Your task to perform on an android device: Search for Mexican restaurants on Maps Image 0: 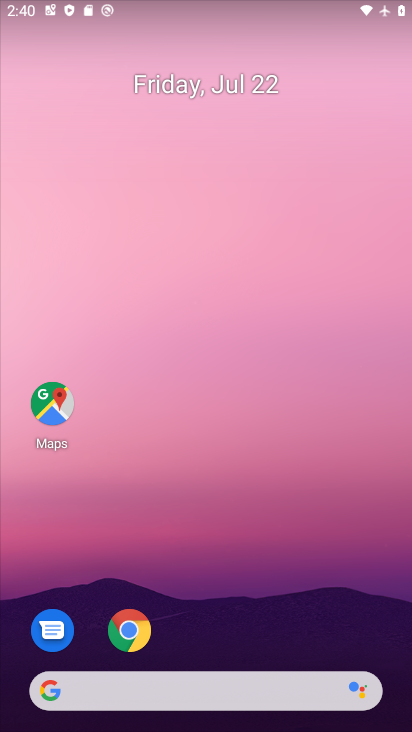
Step 0: drag from (228, 661) to (224, 34)
Your task to perform on an android device: Search for Mexican restaurants on Maps Image 1: 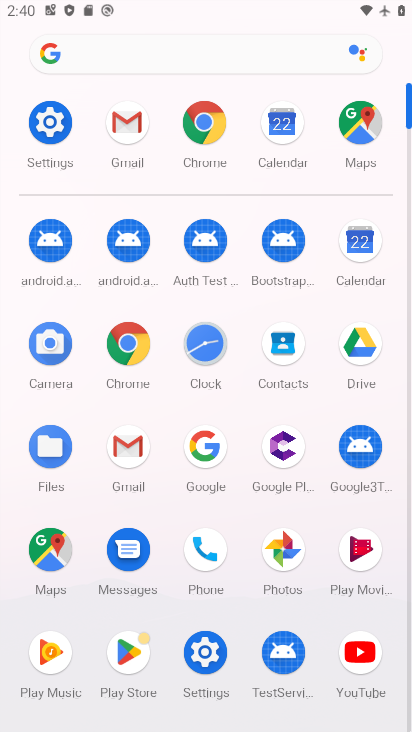
Step 1: click (47, 552)
Your task to perform on an android device: Search for Mexican restaurants on Maps Image 2: 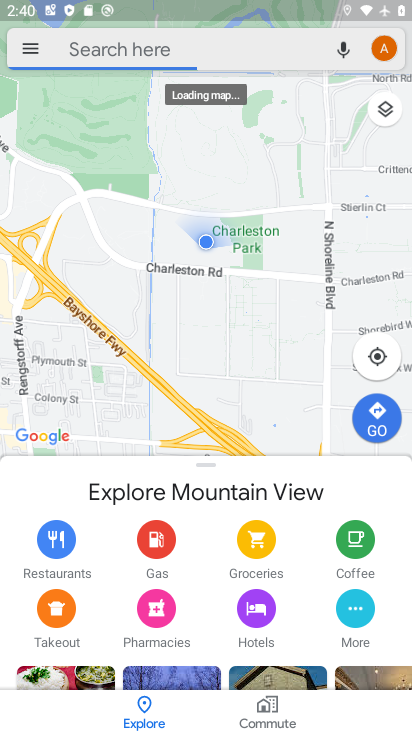
Step 2: click (200, 61)
Your task to perform on an android device: Search for Mexican restaurants on Maps Image 3: 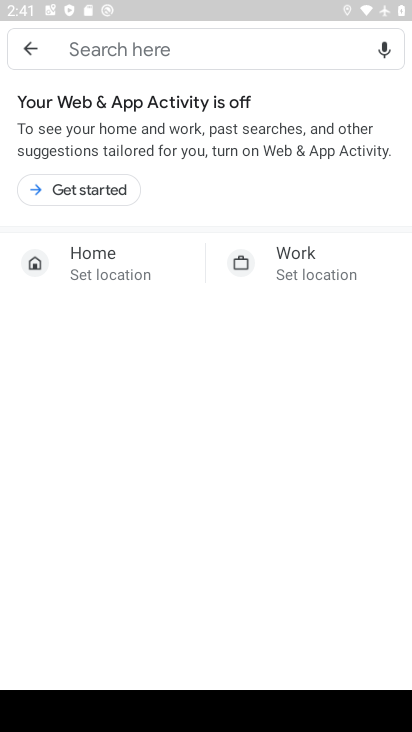
Step 3: click (106, 197)
Your task to perform on an android device: Search for Mexican restaurants on Maps Image 4: 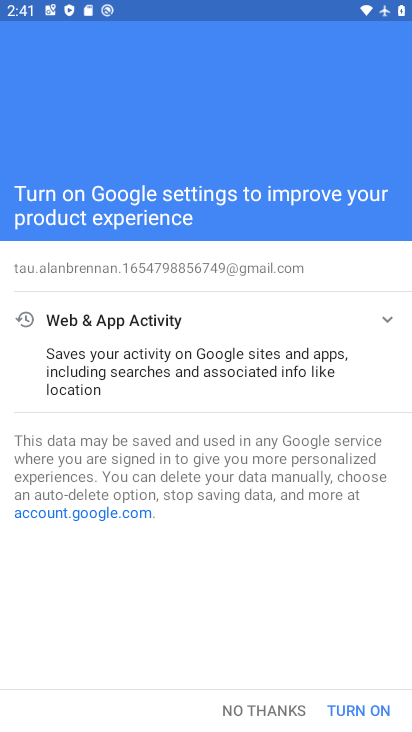
Step 4: click (360, 710)
Your task to perform on an android device: Search for Mexican restaurants on Maps Image 5: 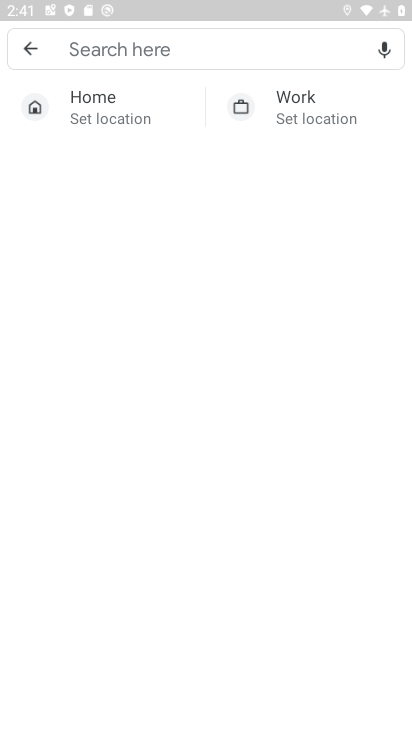
Step 5: click (111, 62)
Your task to perform on an android device: Search for Mexican restaurants on Maps Image 6: 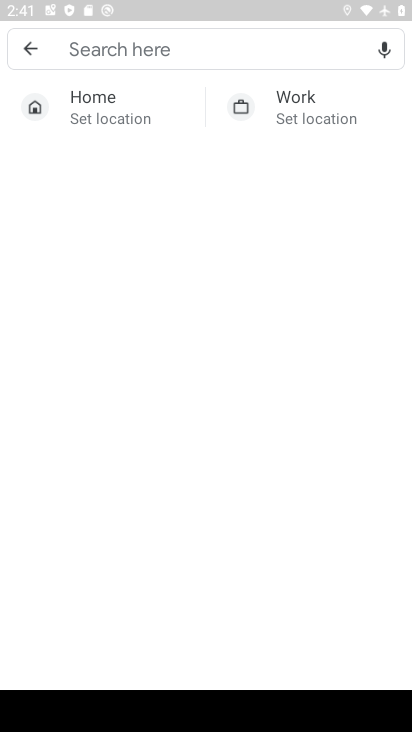
Step 6: type " Mexican restaurants"
Your task to perform on an android device: Search for Mexican restaurants on Maps Image 7: 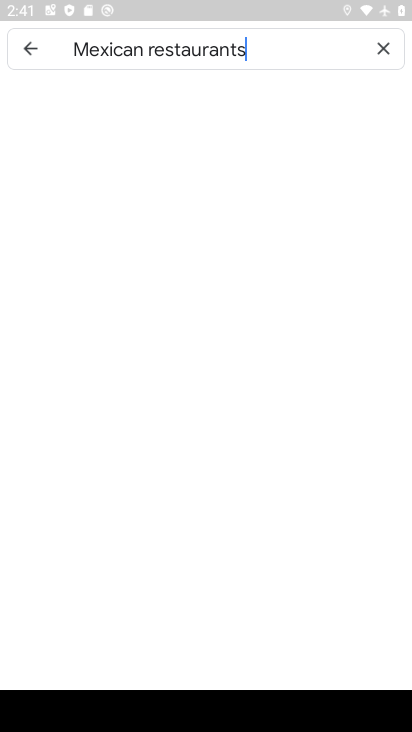
Step 7: type ""
Your task to perform on an android device: Search for Mexican restaurants on Maps Image 8: 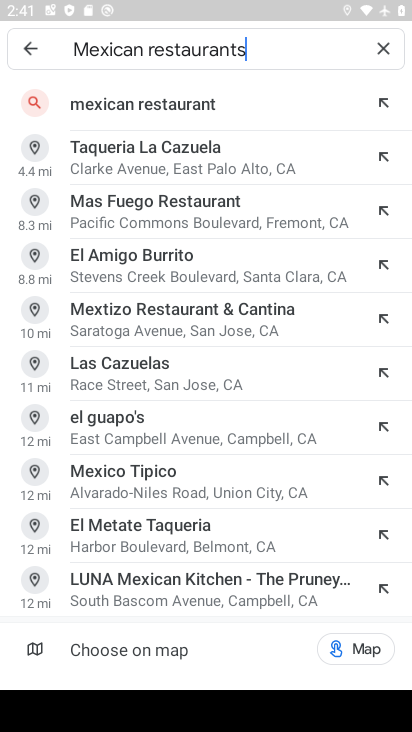
Step 8: click (176, 110)
Your task to perform on an android device: Search for Mexican restaurants on Maps Image 9: 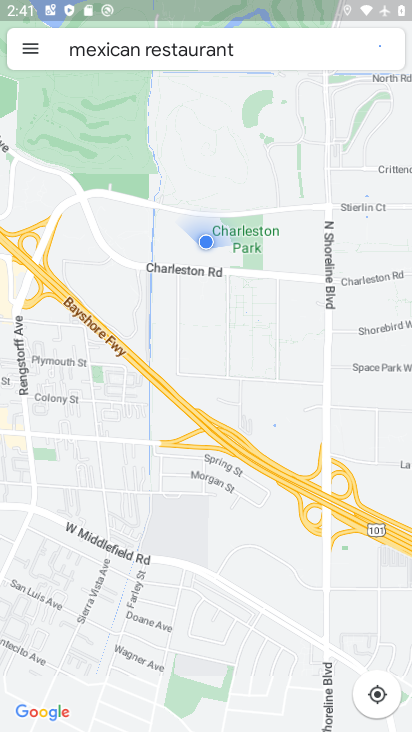
Step 9: task complete